Your task to perform on an android device: Show me productivity apps on the Play Store Image 0: 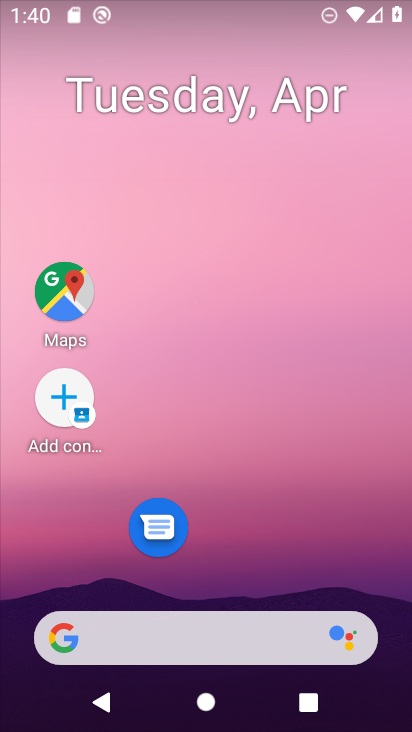
Step 0: drag from (215, 307) to (267, 46)
Your task to perform on an android device: Show me productivity apps on the Play Store Image 1: 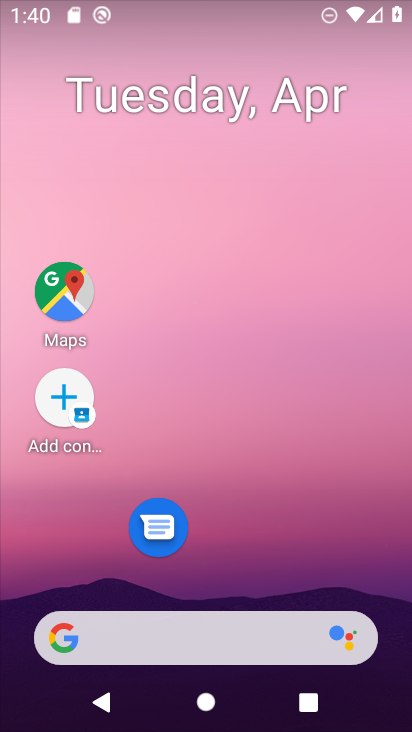
Step 1: drag from (282, 589) to (269, 40)
Your task to perform on an android device: Show me productivity apps on the Play Store Image 2: 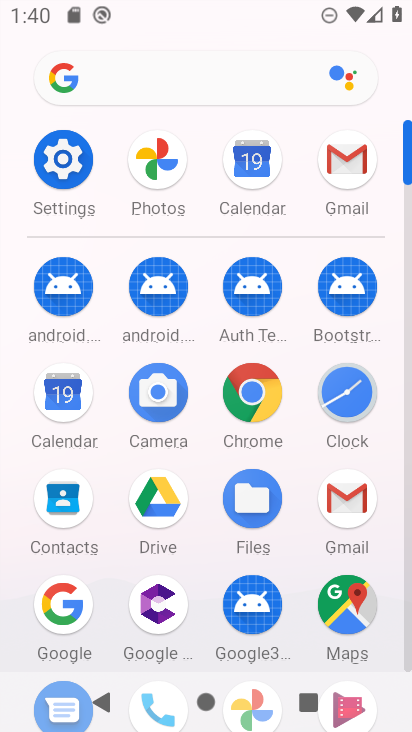
Step 2: drag from (194, 542) to (208, 257)
Your task to perform on an android device: Show me productivity apps on the Play Store Image 3: 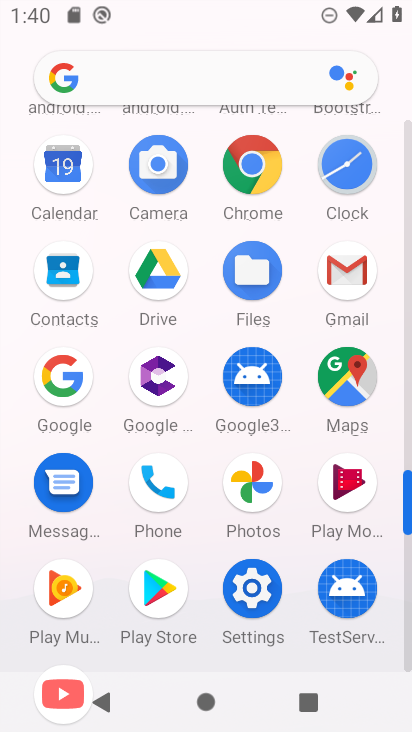
Step 3: click (158, 589)
Your task to perform on an android device: Show me productivity apps on the Play Store Image 4: 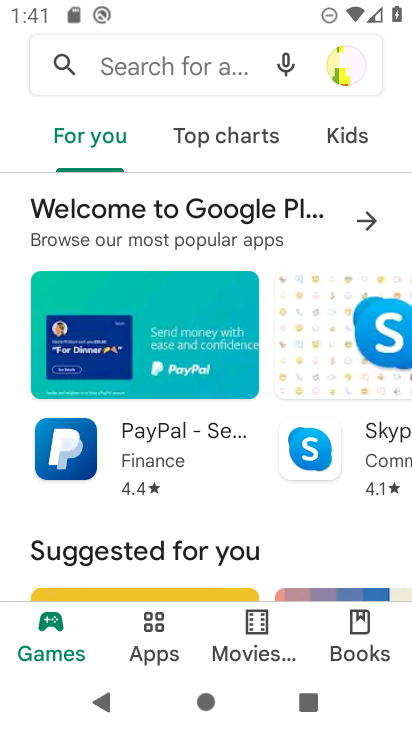
Step 4: click (157, 635)
Your task to perform on an android device: Show me productivity apps on the Play Store Image 5: 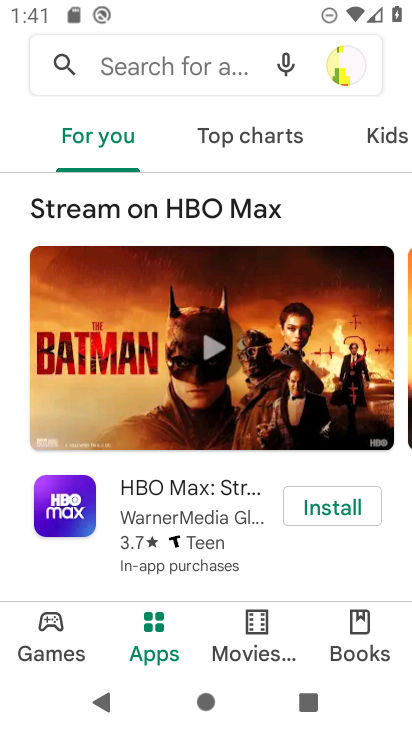
Step 5: drag from (347, 142) to (152, 162)
Your task to perform on an android device: Show me productivity apps on the Play Store Image 6: 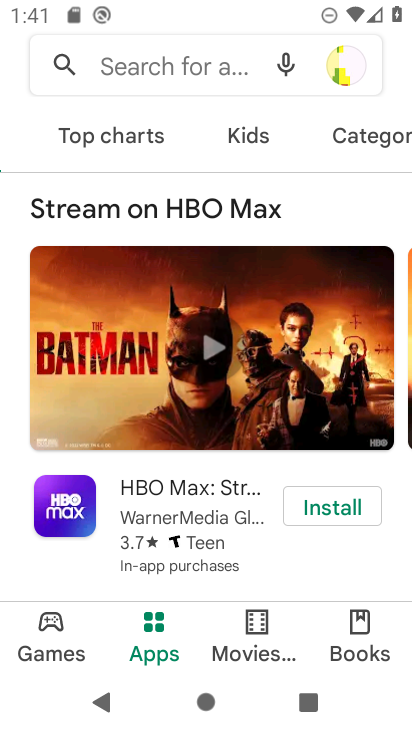
Step 6: click (376, 131)
Your task to perform on an android device: Show me productivity apps on the Play Store Image 7: 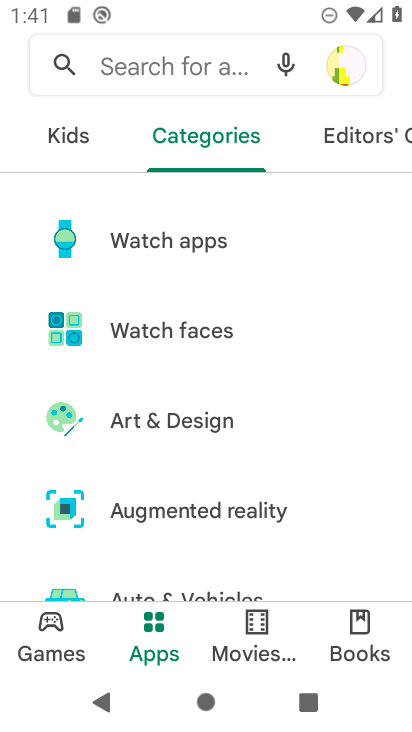
Step 7: drag from (238, 482) to (260, 354)
Your task to perform on an android device: Show me productivity apps on the Play Store Image 8: 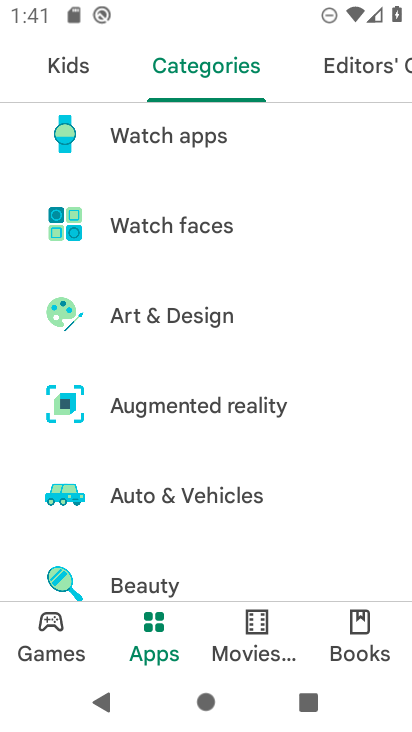
Step 8: drag from (229, 452) to (249, 335)
Your task to perform on an android device: Show me productivity apps on the Play Store Image 9: 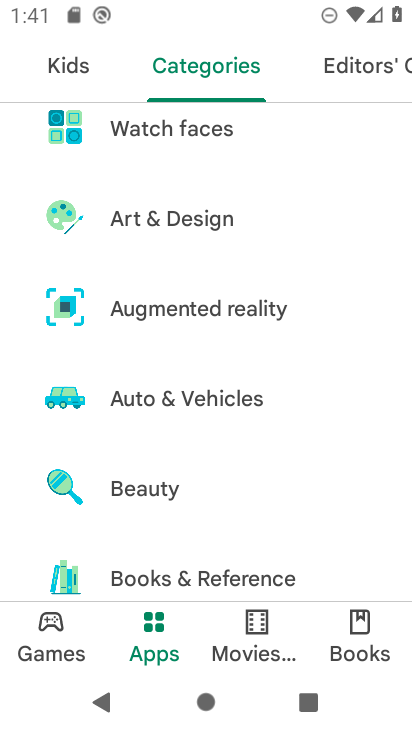
Step 9: drag from (223, 486) to (215, 350)
Your task to perform on an android device: Show me productivity apps on the Play Store Image 10: 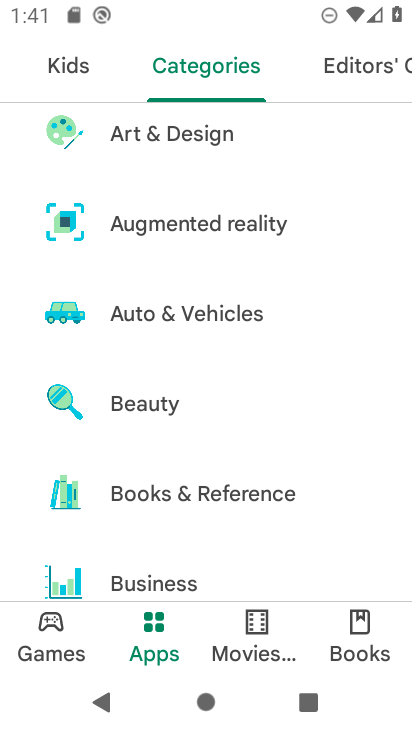
Step 10: drag from (229, 507) to (251, 365)
Your task to perform on an android device: Show me productivity apps on the Play Store Image 11: 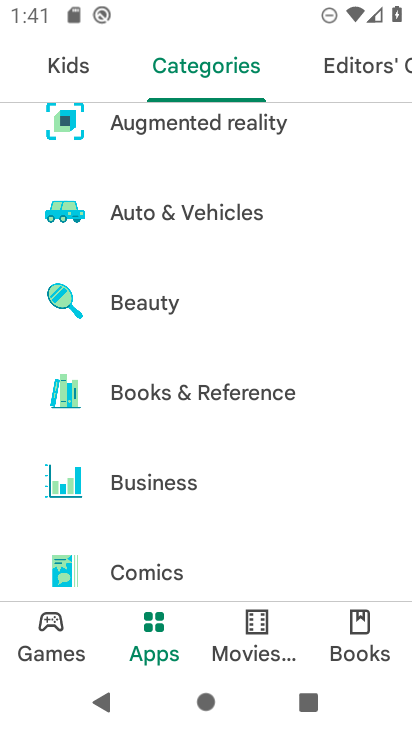
Step 11: drag from (259, 534) to (277, 384)
Your task to perform on an android device: Show me productivity apps on the Play Store Image 12: 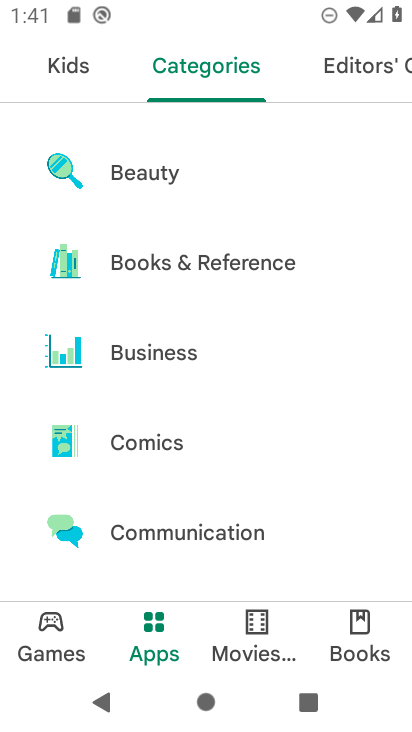
Step 12: drag from (255, 455) to (263, 342)
Your task to perform on an android device: Show me productivity apps on the Play Store Image 13: 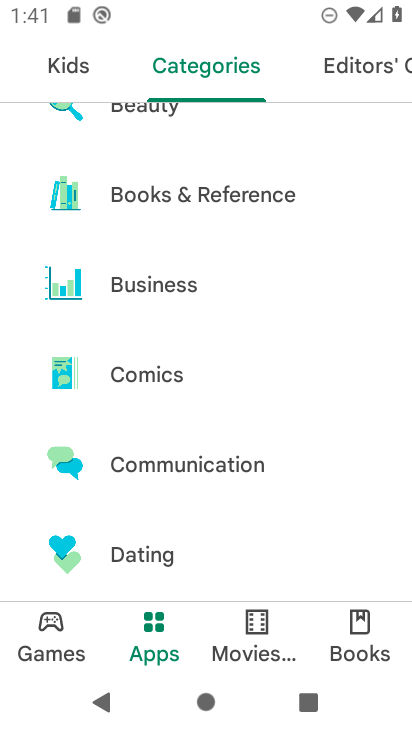
Step 13: drag from (230, 527) to (235, 345)
Your task to perform on an android device: Show me productivity apps on the Play Store Image 14: 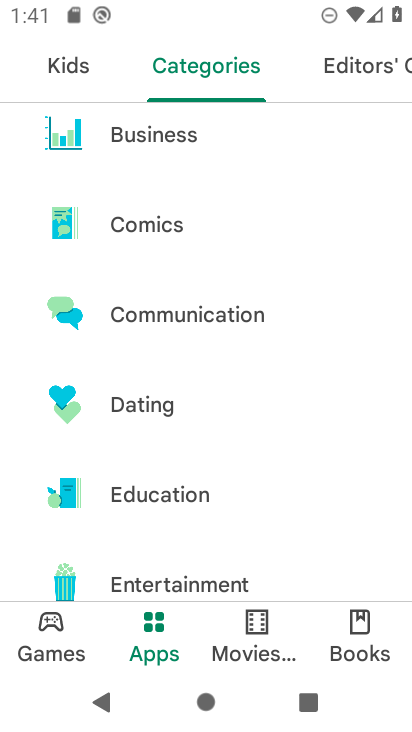
Step 14: drag from (211, 537) to (246, 379)
Your task to perform on an android device: Show me productivity apps on the Play Store Image 15: 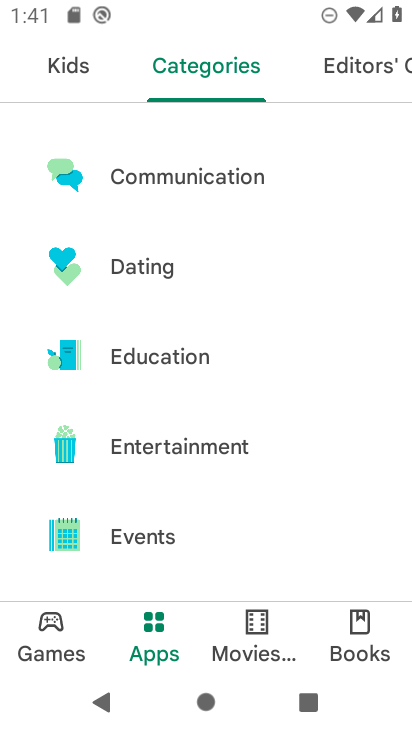
Step 15: drag from (188, 494) to (201, 373)
Your task to perform on an android device: Show me productivity apps on the Play Store Image 16: 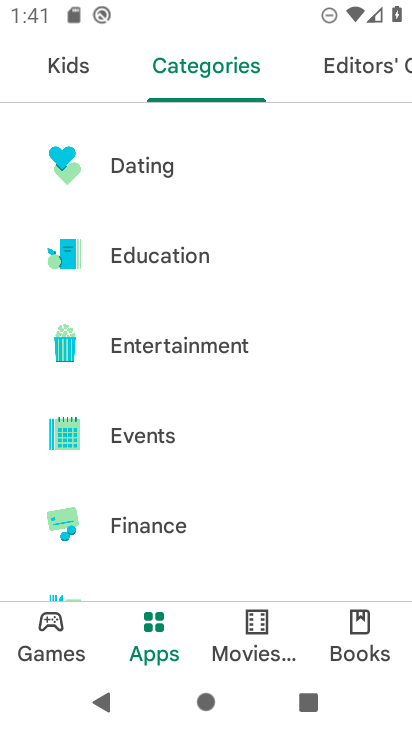
Step 16: drag from (196, 481) to (252, 383)
Your task to perform on an android device: Show me productivity apps on the Play Store Image 17: 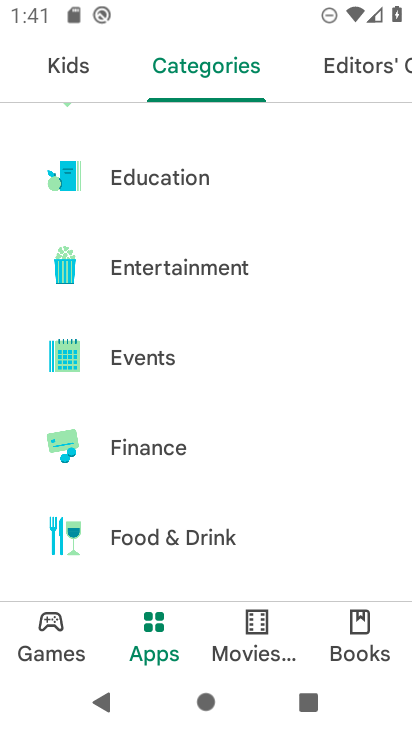
Step 17: drag from (201, 494) to (224, 415)
Your task to perform on an android device: Show me productivity apps on the Play Store Image 18: 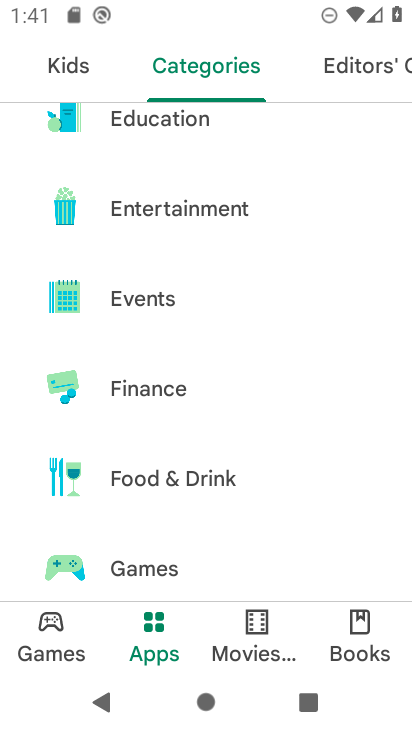
Step 18: drag from (180, 526) to (225, 425)
Your task to perform on an android device: Show me productivity apps on the Play Store Image 19: 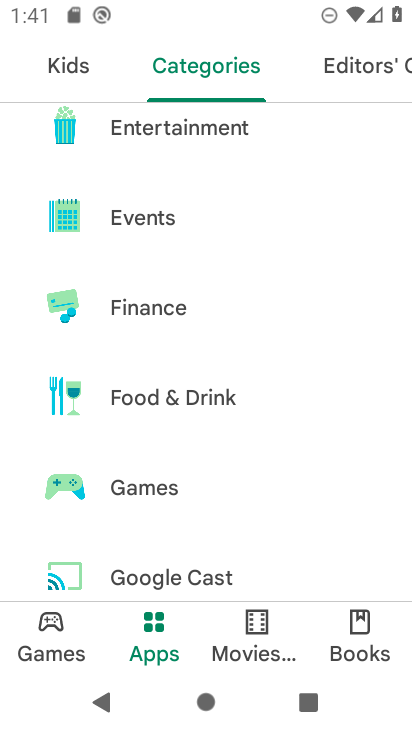
Step 19: drag from (214, 497) to (260, 385)
Your task to perform on an android device: Show me productivity apps on the Play Store Image 20: 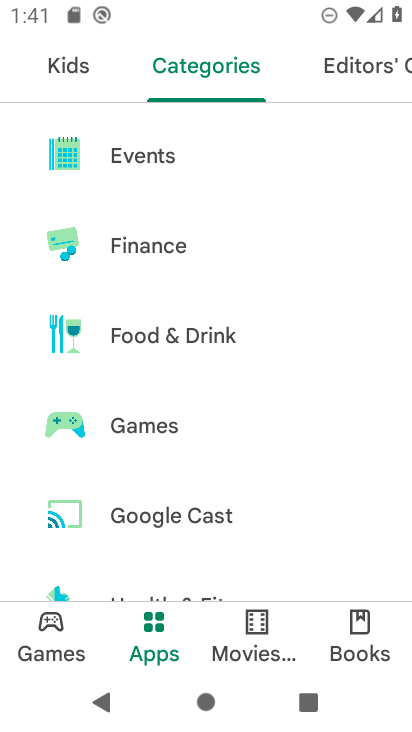
Step 20: drag from (208, 484) to (222, 385)
Your task to perform on an android device: Show me productivity apps on the Play Store Image 21: 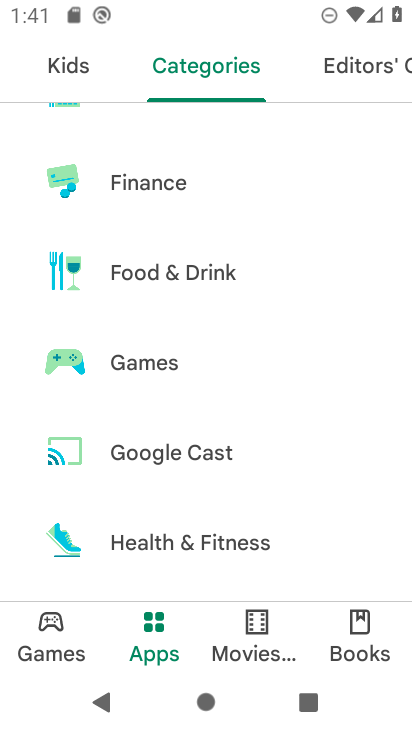
Step 21: drag from (217, 509) to (256, 334)
Your task to perform on an android device: Show me productivity apps on the Play Store Image 22: 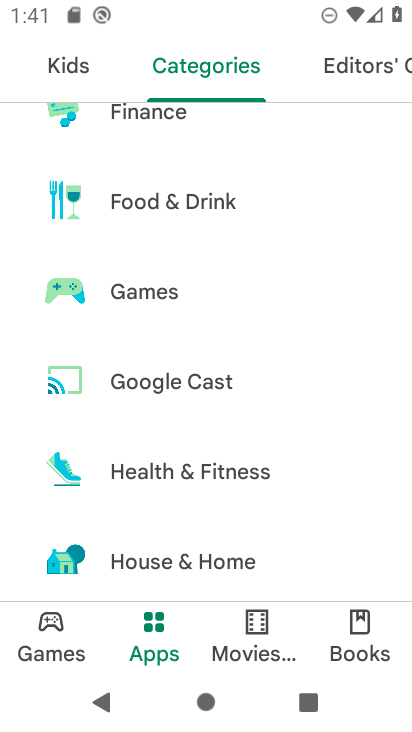
Step 22: drag from (243, 509) to (262, 302)
Your task to perform on an android device: Show me productivity apps on the Play Store Image 23: 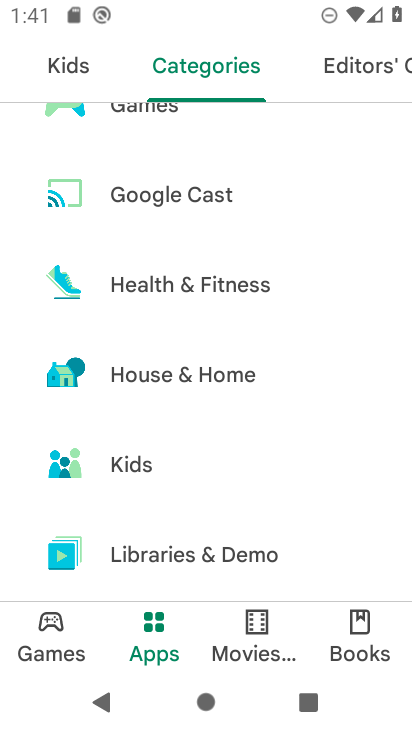
Step 23: drag from (265, 510) to (298, 389)
Your task to perform on an android device: Show me productivity apps on the Play Store Image 24: 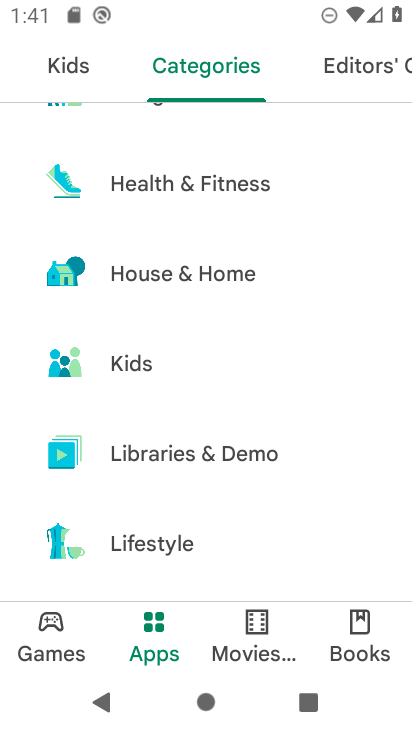
Step 24: drag from (252, 537) to (274, 390)
Your task to perform on an android device: Show me productivity apps on the Play Store Image 25: 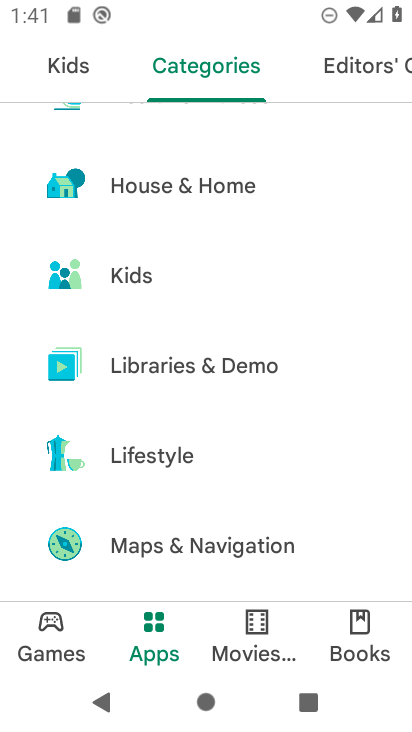
Step 25: drag from (246, 499) to (266, 384)
Your task to perform on an android device: Show me productivity apps on the Play Store Image 26: 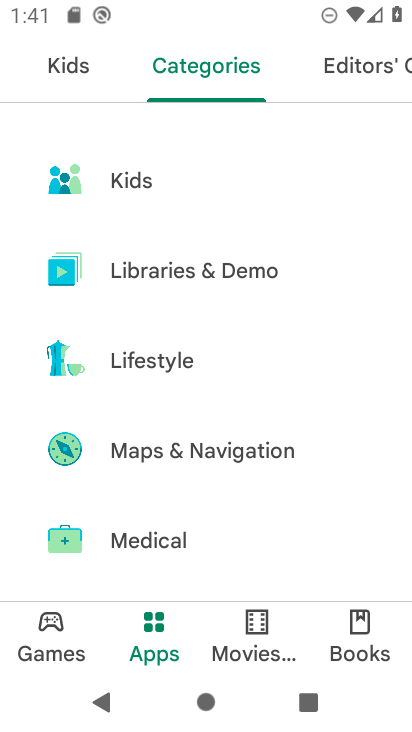
Step 26: drag from (238, 510) to (257, 381)
Your task to perform on an android device: Show me productivity apps on the Play Store Image 27: 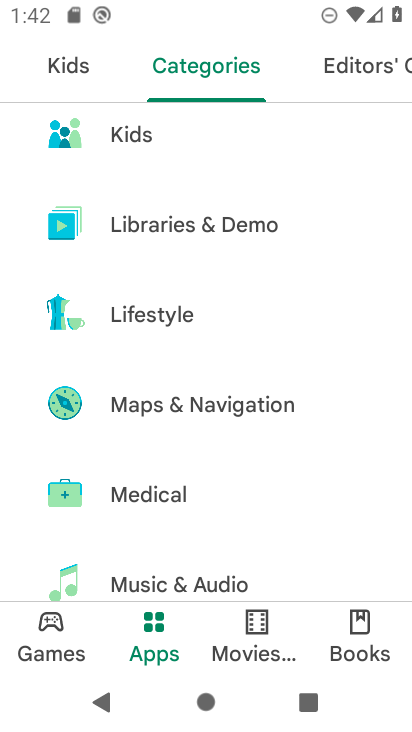
Step 27: drag from (232, 492) to (258, 339)
Your task to perform on an android device: Show me productivity apps on the Play Store Image 28: 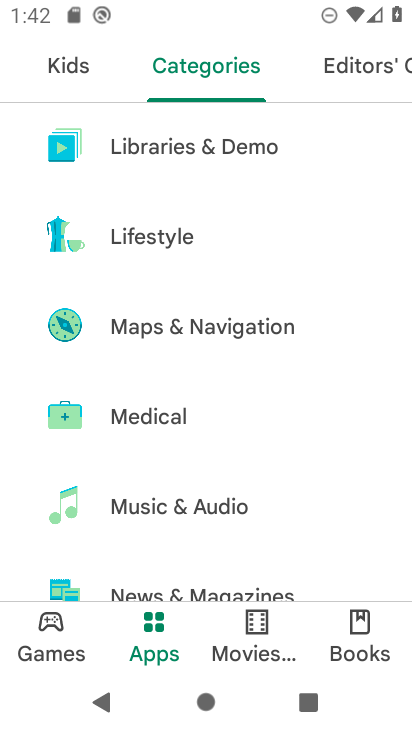
Step 28: drag from (258, 494) to (284, 390)
Your task to perform on an android device: Show me productivity apps on the Play Store Image 29: 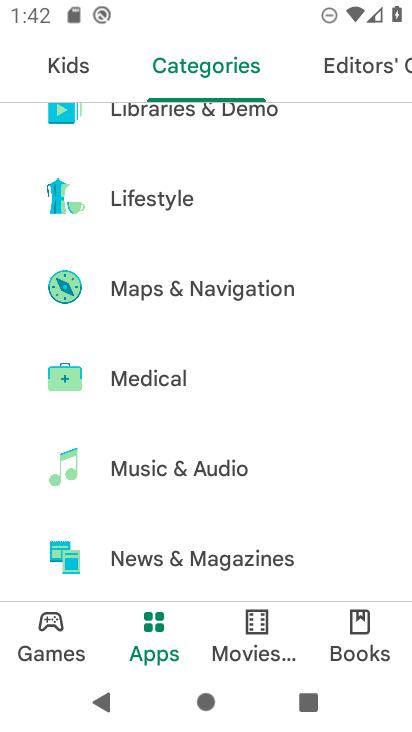
Step 29: drag from (266, 509) to (284, 429)
Your task to perform on an android device: Show me productivity apps on the Play Store Image 30: 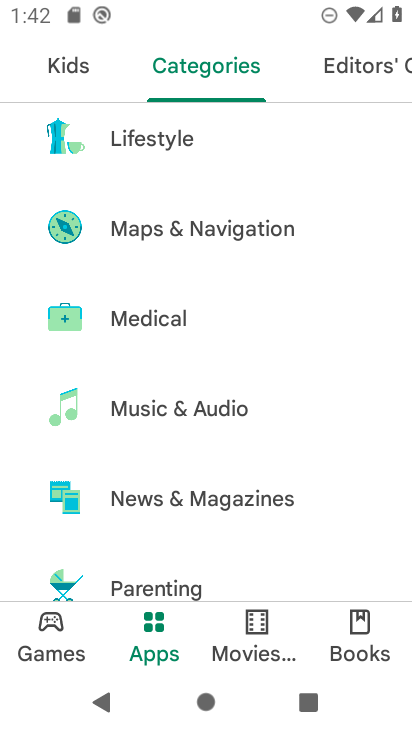
Step 30: drag from (252, 549) to (293, 444)
Your task to perform on an android device: Show me productivity apps on the Play Store Image 31: 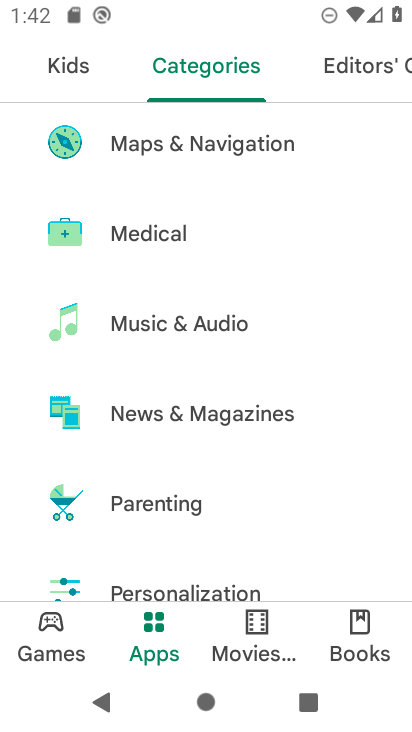
Step 31: drag from (262, 548) to (279, 445)
Your task to perform on an android device: Show me productivity apps on the Play Store Image 32: 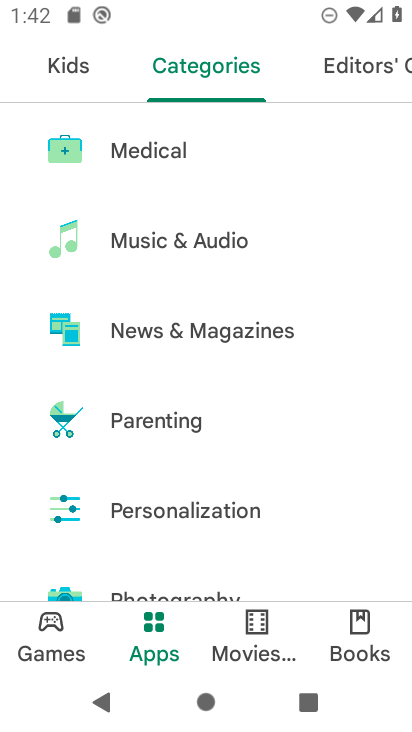
Step 32: drag from (278, 551) to (299, 479)
Your task to perform on an android device: Show me productivity apps on the Play Store Image 33: 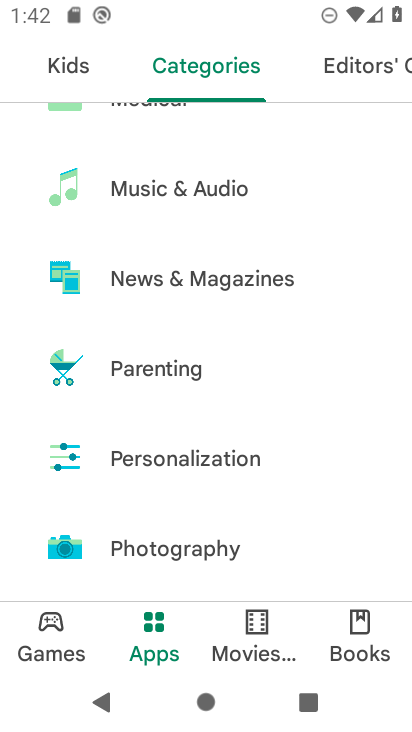
Step 33: drag from (282, 568) to (315, 485)
Your task to perform on an android device: Show me productivity apps on the Play Store Image 34: 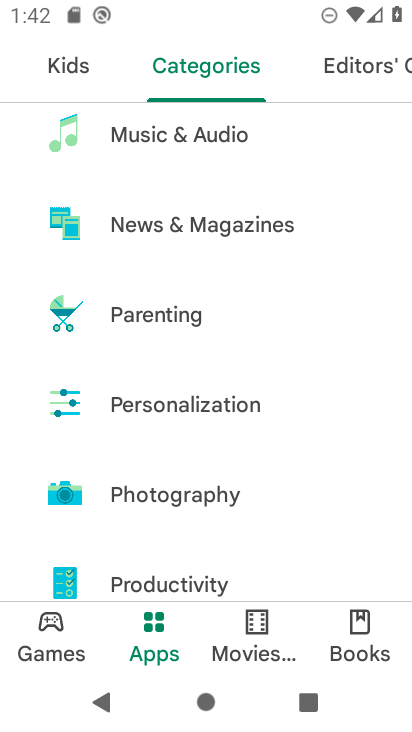
Step 34: drag from (270, 574) to (280, 488)
Your task to perform on an android device: Show me productivity apps on the Play Store Image 35: 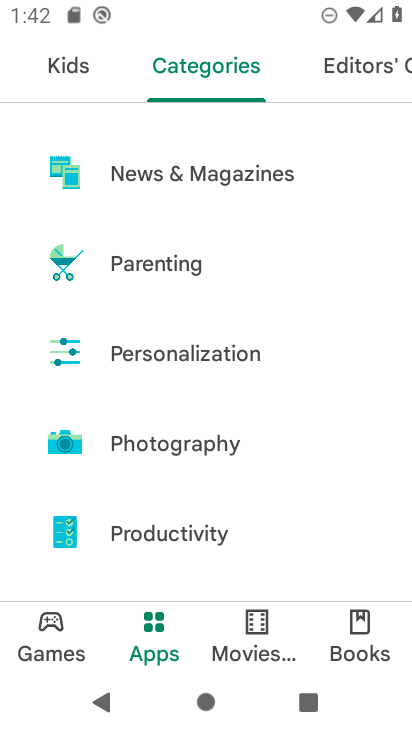
Step 35: click (204, 532)
Your task to perform on an android device: Show me productivity apps on the Play Store Image 36: 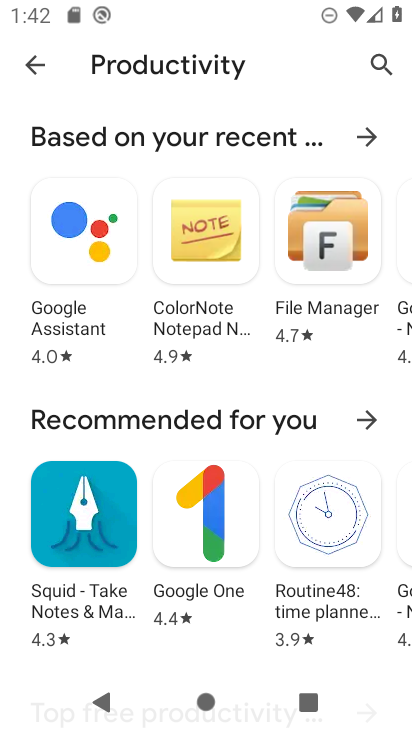
Step 36: task complete